Your task to perform on an android device: allow cookies in the chrome app Image 0: 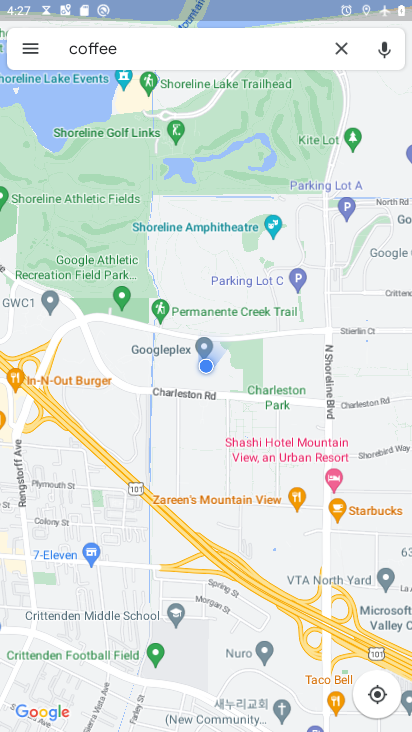
Step 0: drag from (245, 644) to (226, 41)
Your task to perform on an android device: allow cookies in the chrome app Image 1: 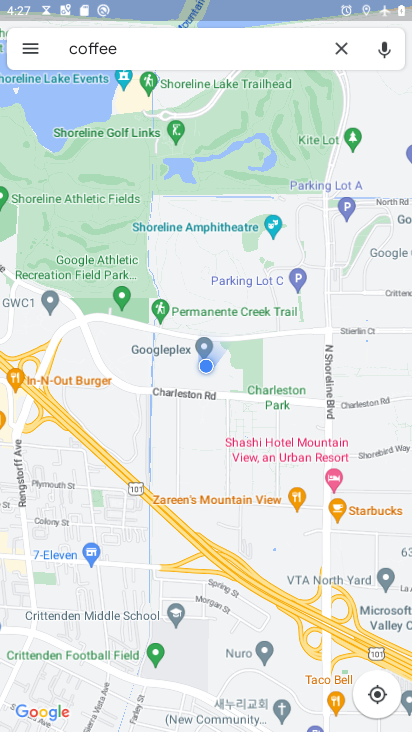
Step 1: drag from (267, 450) to (260, 63)
Your task to perform on an android device: allow cookies in the chrome app Image 2: 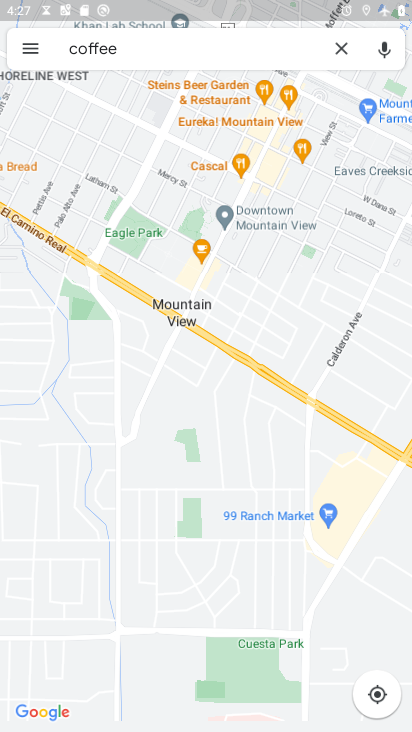
Step 2: press back button
Your task to perform on an android device: allow cookies in the chrome app Image 3: 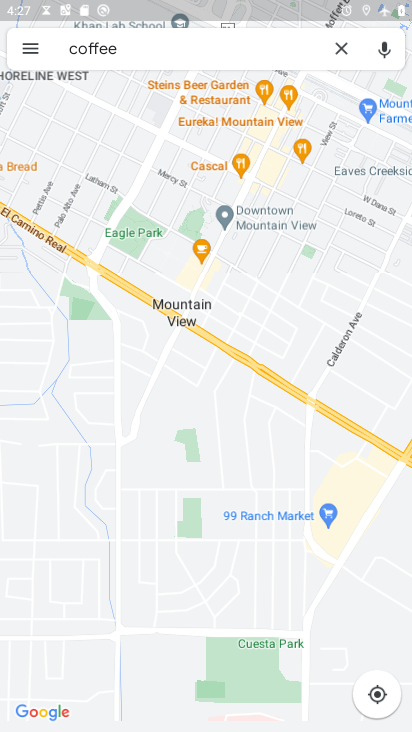
Step 3: press back button
Your task to perform on an android device: allow cookies in the chrome app Image 4: 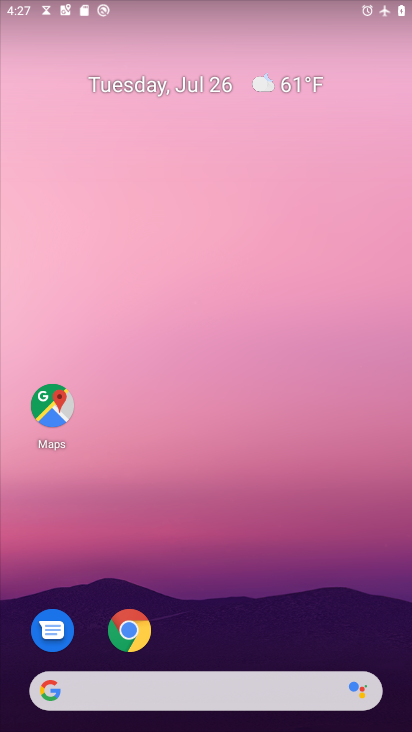
Step 4: drag from (244, 621) to (214, 24)
Your task to perform on an android device: allow cookies in the chrome app Image 5: 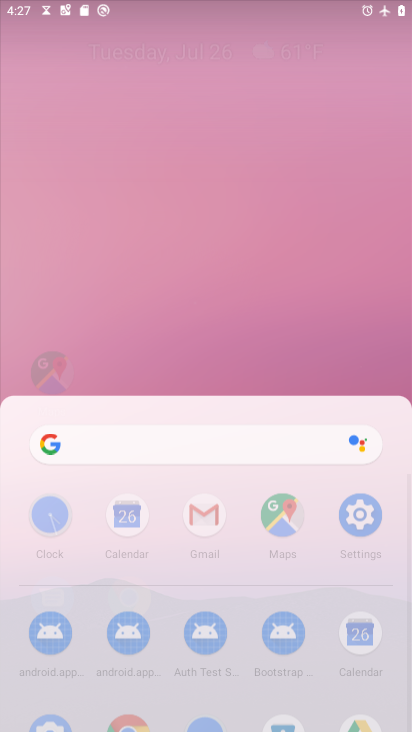
Step 5: drag from (210, 442) to (204, 127)
Your task to perform on an android device: allow cookies in the chrome app Image 6: 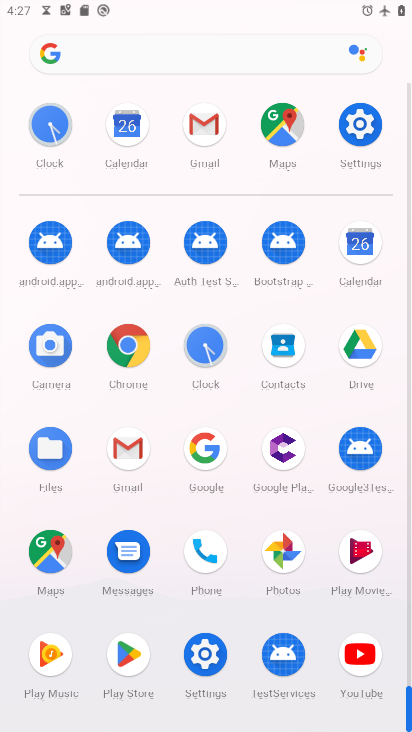
Step 6: click (133, 339)
Your task to perform on an android device: allow cookies in the chrome app Image 7: 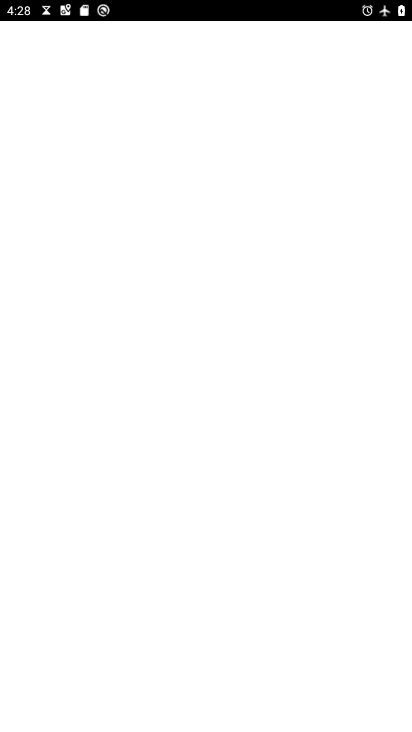
Step 7: click (133, 340)
Your task to perform on an android device: allow cookies in the chrome app Image 8: 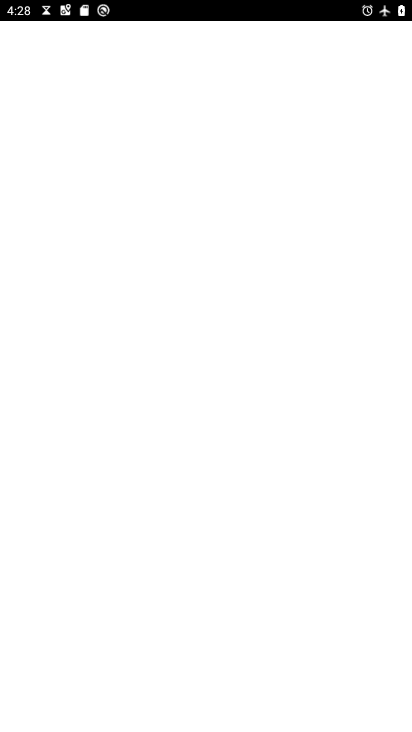
Step 8: click (134, 341)
Your task to perform on an android device: allow cookies in the chrome app Image 9: 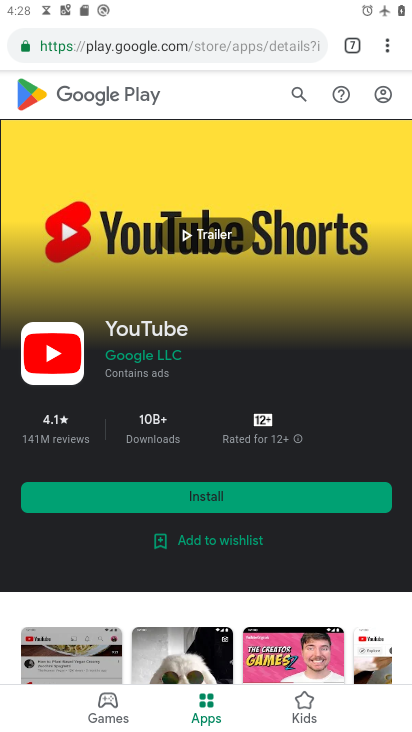
Step 9: click (387, 46)
Your task to perform on an android device: allow cookies in the chrome app Image 10: 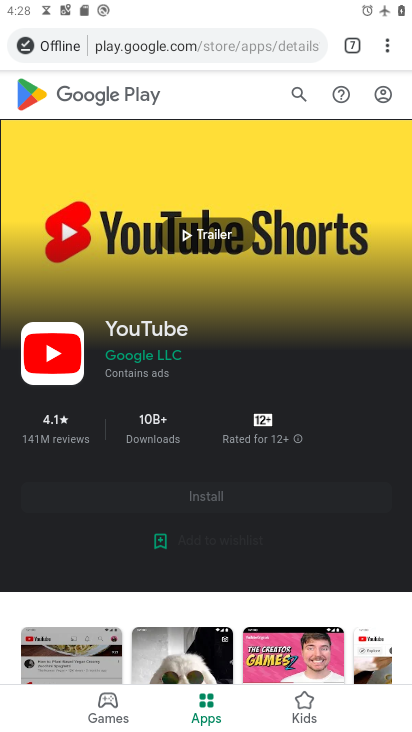
Step 10: drag from (386, 41) to (216, 504)
Your task to perform on an android device: allow cookies in the chrome app Image 11: 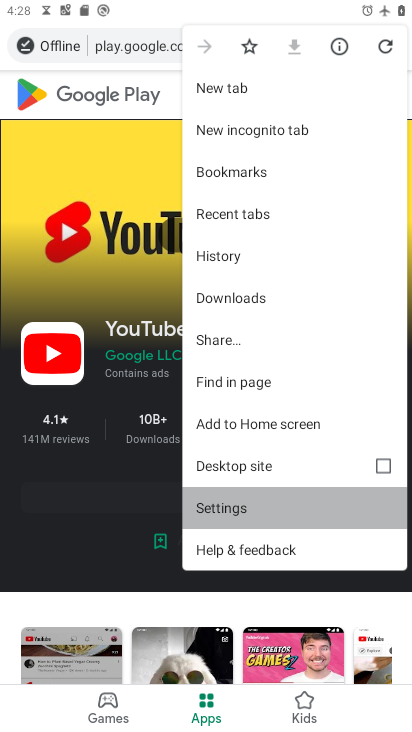
Step 11: click (216, 504)
Your task to perform on an android device: allow cookies in the chrome app Image 12: 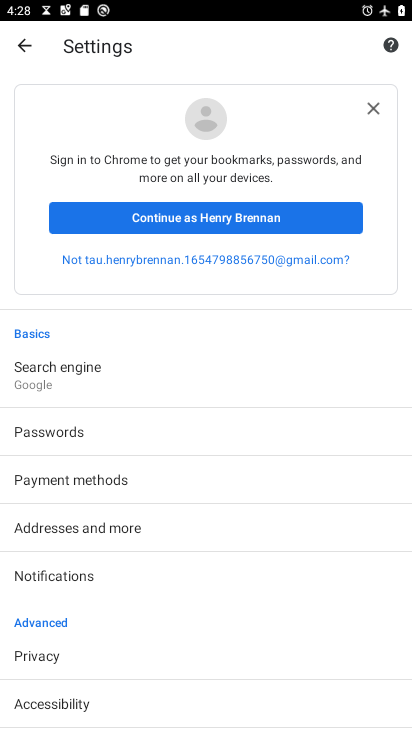
Step 12: drag from (79, 624) to (87, 195)
Your task to perform on an android device: allow cookies in the chrome app Image 13: 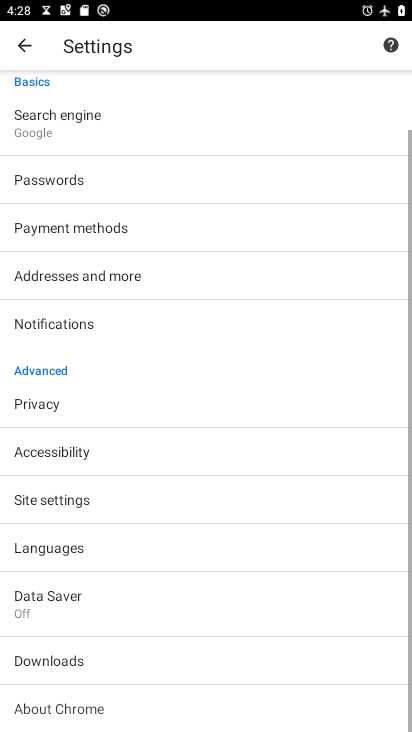
Step 13: drag from (78, 441) to (99, 227)
Your task to perform on an android device: allow cookies in the chrome app Image 14: 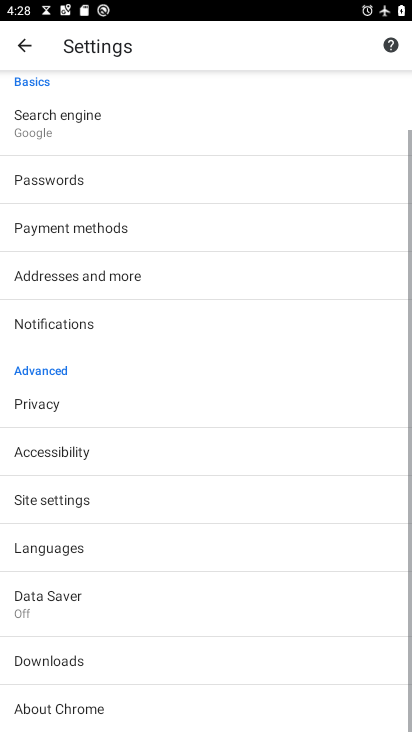
Step 14: drag from (264, 139) to (316, 555)
Your task to perform on an android device: allow cookies in the chrome app Image 15: 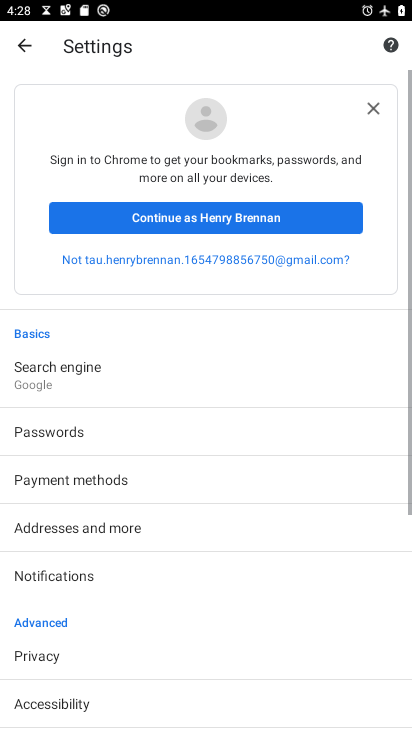
Step 15: click (373, 108)
Your task to perform on an android device: allow cookies in the chrome app Image 16: 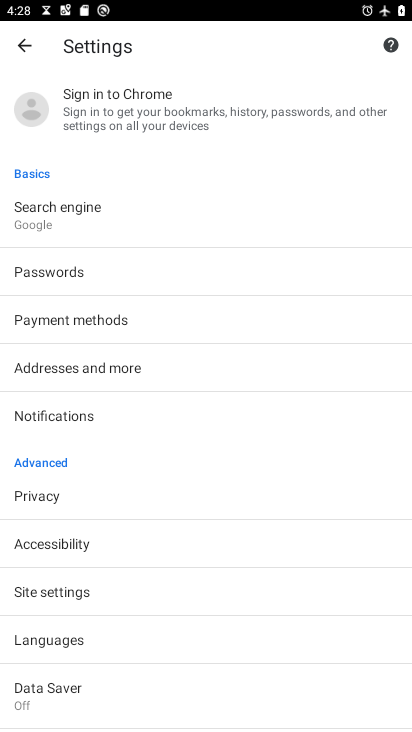
Step 16: click (33, 591)
Your task to perform on an android device: allow cookies in the chrome app Image 17: 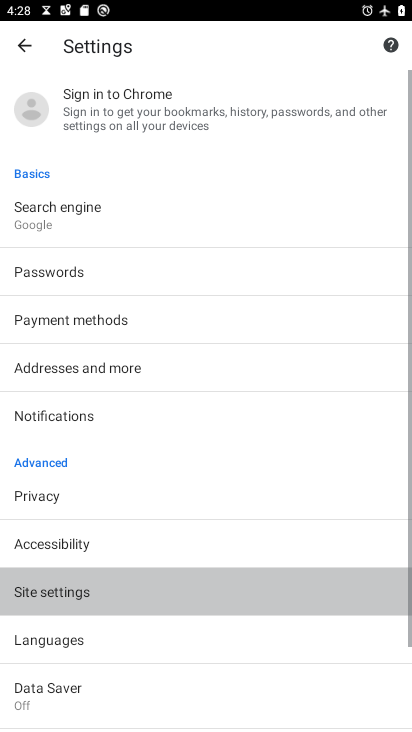
Step 17: click (37, 592)
Your task to perform on an android device: allow cookies in the chrome app Image 18: 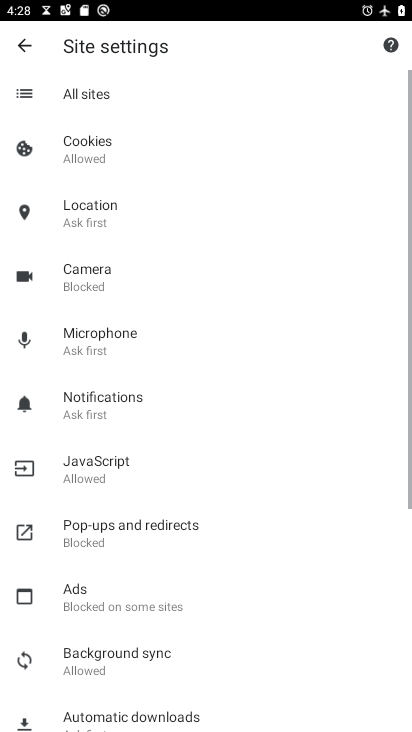
Step 18: click (93, 150)
Your task to perform on an android device: allow cookies in the chrome app Image 19: 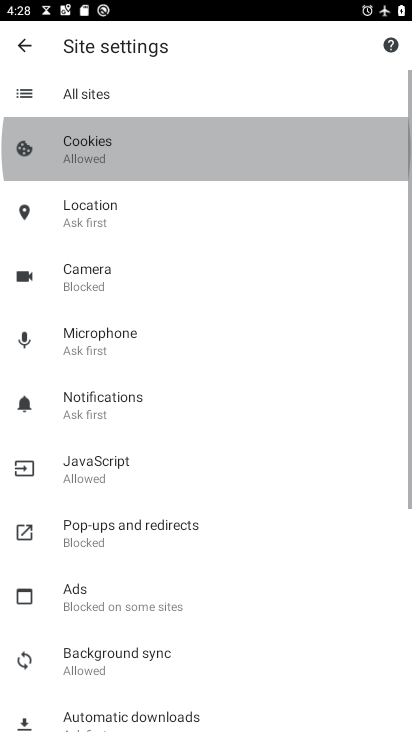
Step 19: click (95, 149)
Your task to perform on an android device: allow cookies in the chrome app Image 20: 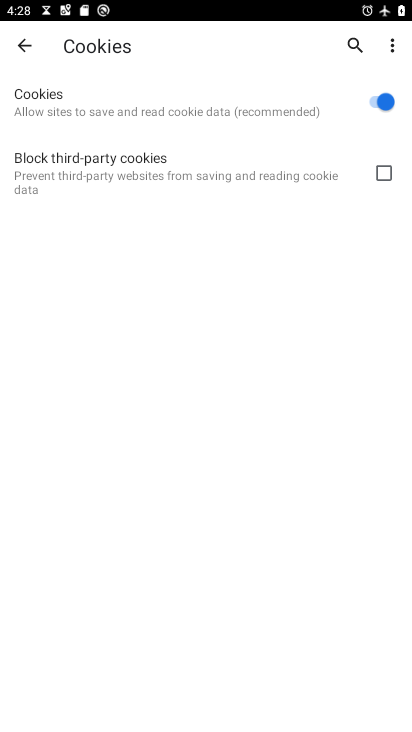
Step 20: task complete